Your task to perform on an android device: check android version Image 0: 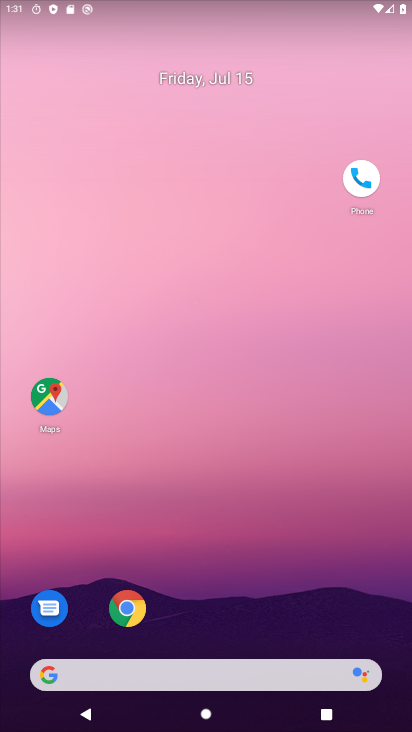
Step 0: drag from (198, 593) to (204, 378)
Your task to perform on an android device: check android version Image 1: 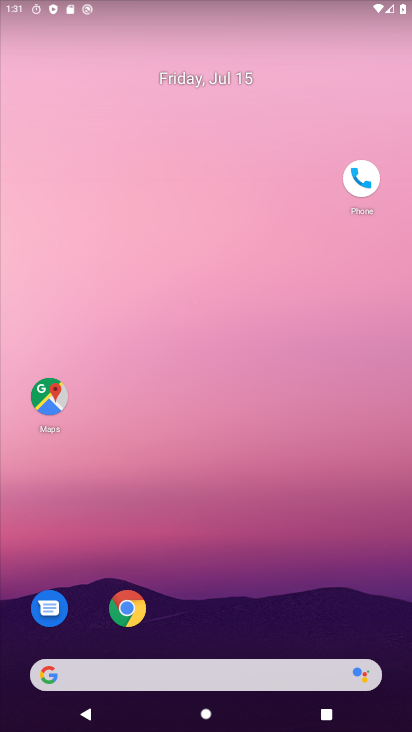
Step 1: drag from (203, 590) to (258, 273)
Your task to perform on an android device: check android version Image 2: 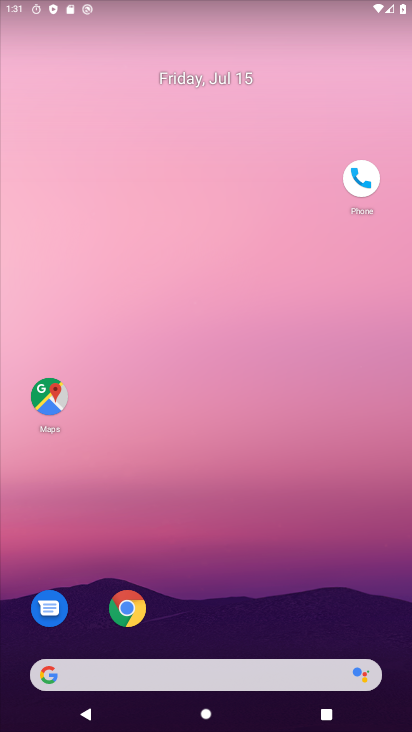
Step 2: drag from (275, 357) to (322, 132)
Your task to perform on an android device: check android version Image 3: 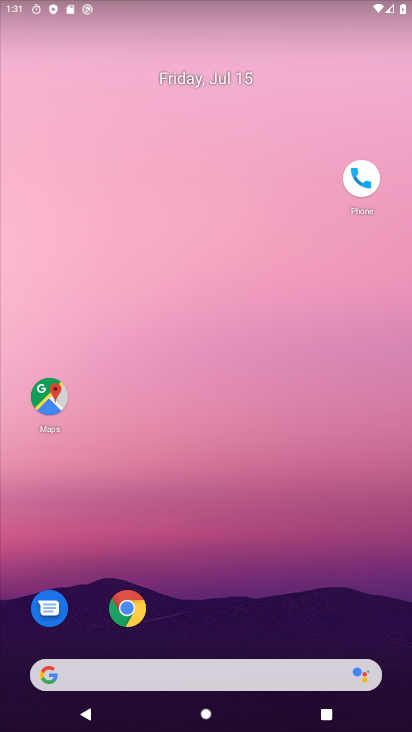
Step 3: drag from (197, 627) to (206, 222)
Your task to perform on an android device: check android version Image 4: 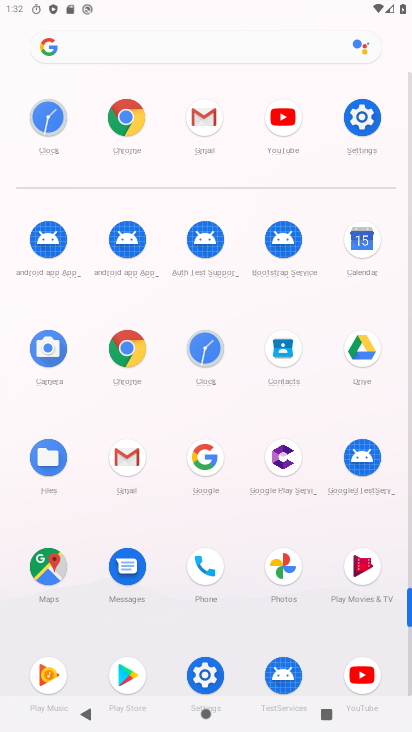
Step 4: click (351, 110)
Your task to perform on an android device: check android version Image 5: 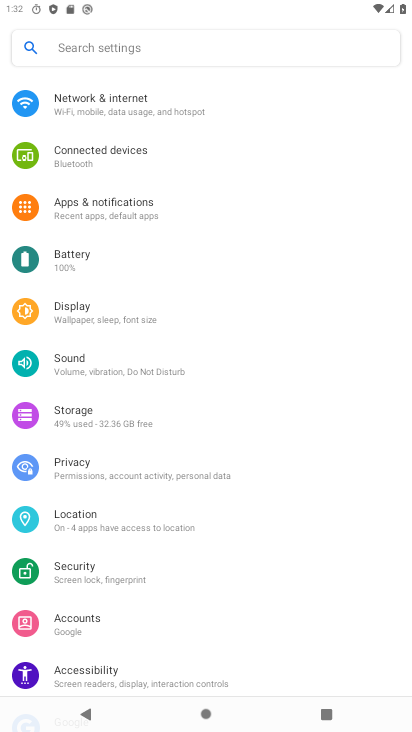
Step 5: drag from (195, 577) to (224, 179)
Your task to perform on an android device: check android version Image 6: 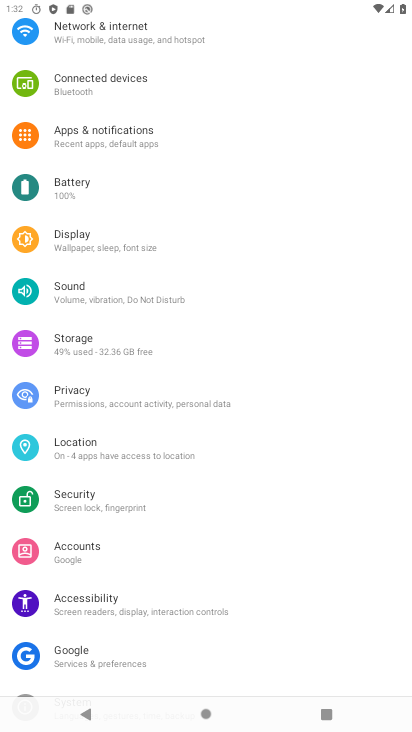
Step 6: drag from (132, 662) to (272, 185)
Your task to perform on an android device: check android version Image 7: 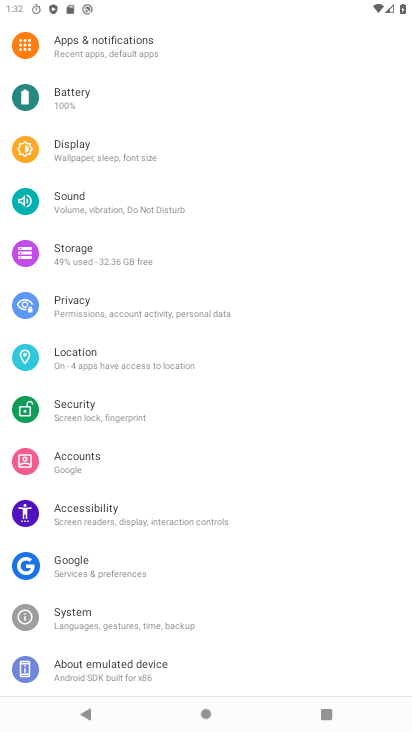
Step 7: click (92, 665)
Your task to perform on an android device: check android version Image 8: 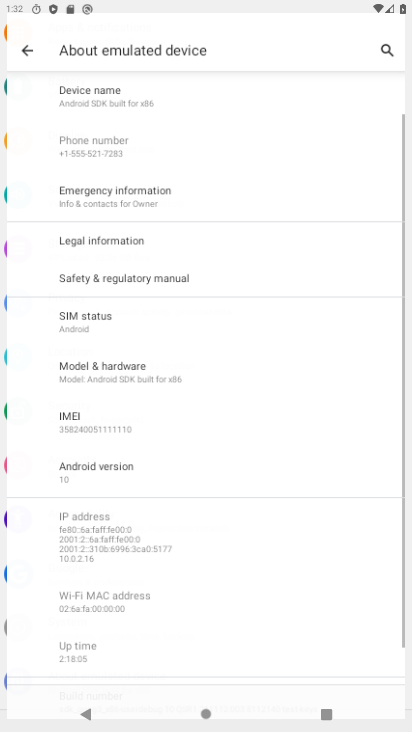
Step 8: drag from (94, 660) to (230, 211)
Your task to perform on an android device: check android version Image 9: 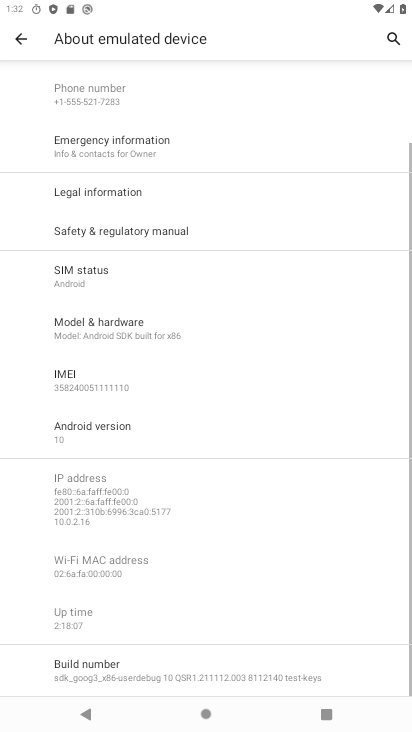
Step 9: click (119, 433)
Your task to perform on an android device: check android version Image 10: 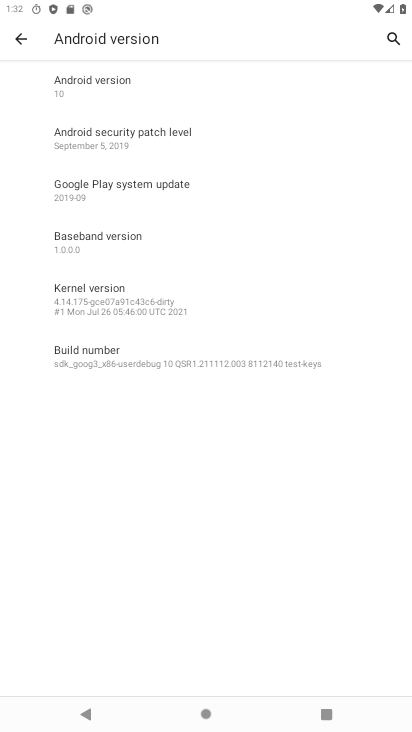
Step 10: task complete